Your task to perform on an android device: open the mobile data screen to see how much data has been used Image 0: 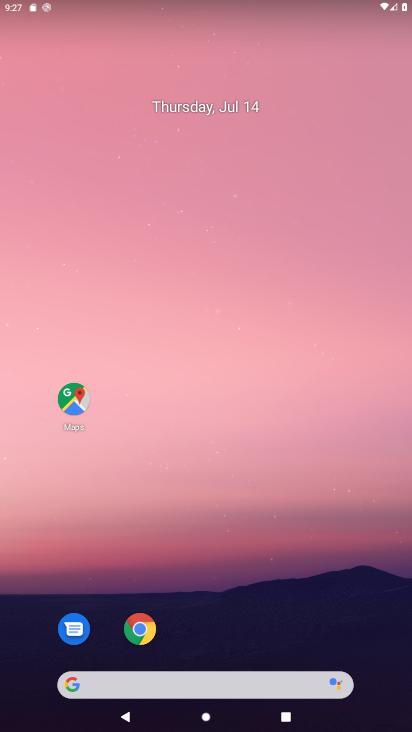
Step 0: click (253, 592)
Your task to perform on an android device: open the mobile data screen to see how much data has been used Image 1: 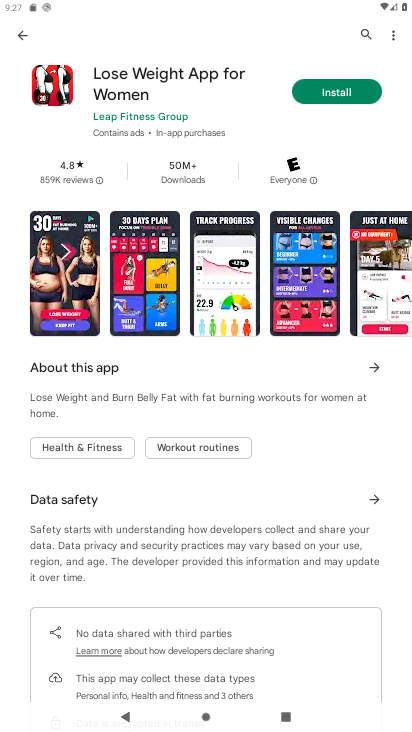
Step 1: press home button
Your task to perform on an android device: open the mobile data screen to see how much data has been used Image 2: 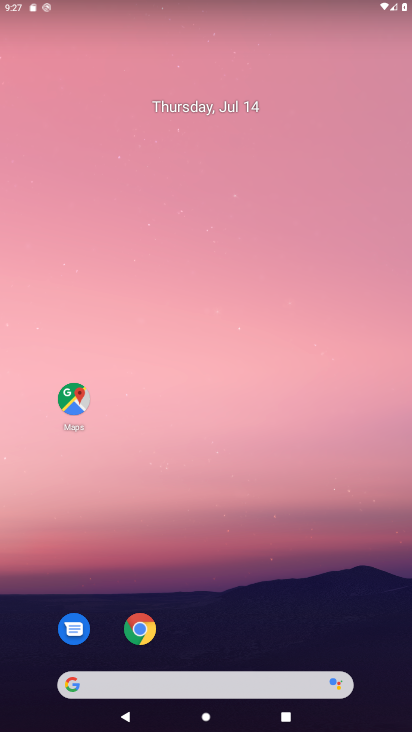
Step 2: drag from (302, 636) to (266, 197)
Your task to perform on an android device: open the mobile data screen to see how much data has been used Image 3: 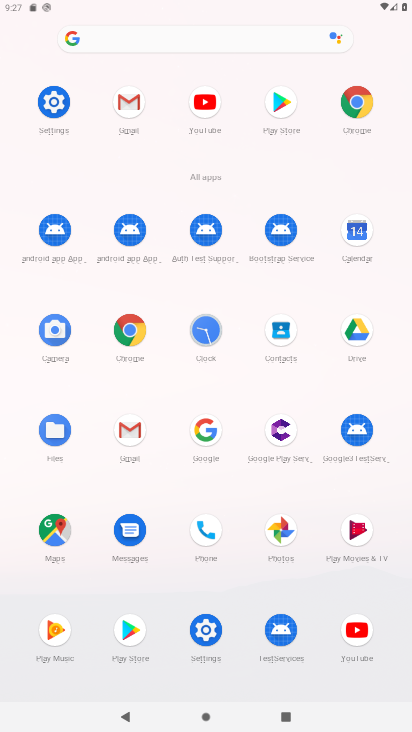
Step 3: drag from (260, 6) to (290, 496)
Your task to perform on an android device: open the mobile data screen to see how much data has been used Image 4: 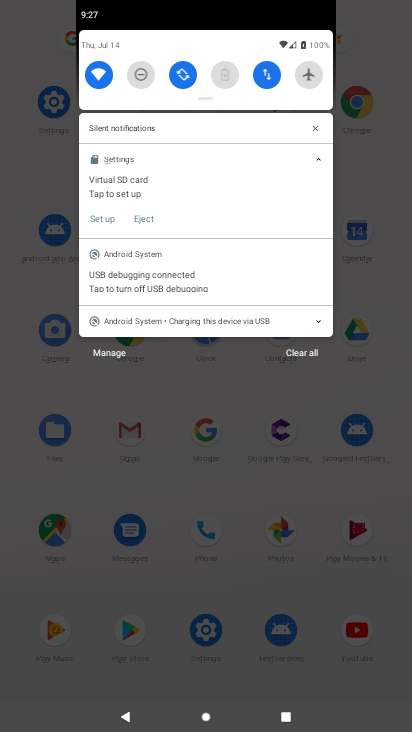
Step 4: click (268, 65)
Your task to perform on an android device: open the mobile data screen to see how much data has been used Image 5: 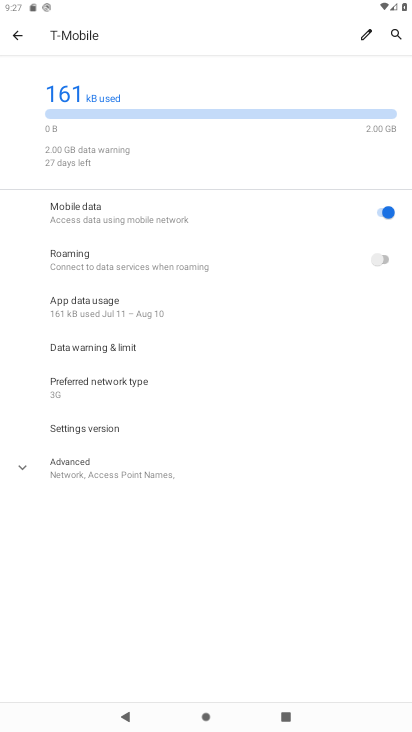
Step 5: task complete